Your task to perform on an android device: set default search engine in the chrome app Image 0: 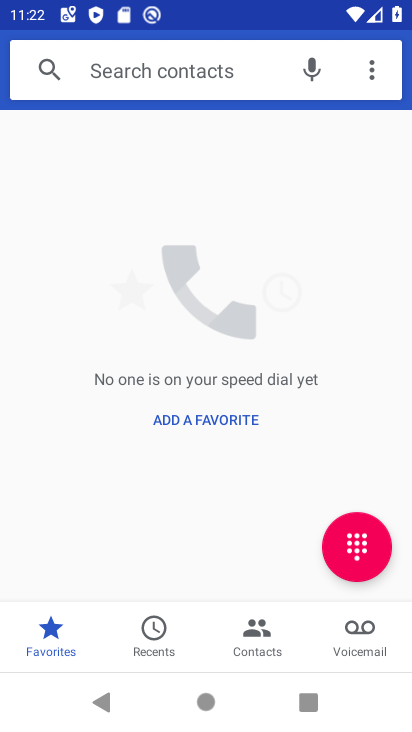
Step 0: press home button
Your task to perform on an android device: set default search engine in the chrome app Image 1: 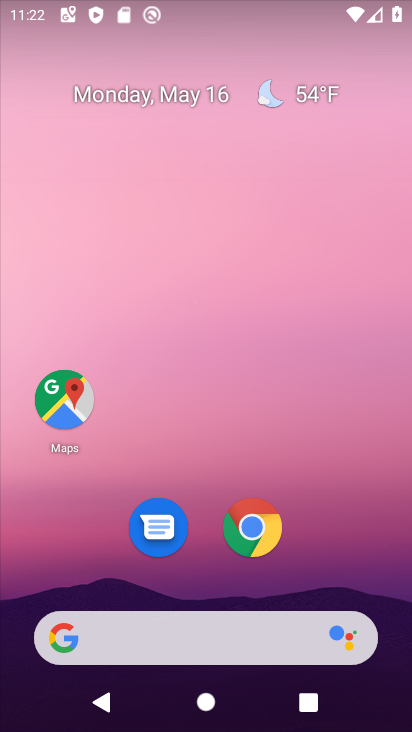
Step 1: drag from (249, 674) to (275, 265)
Your task to perform on an android device: set default search engine in the chrome app Image 2: 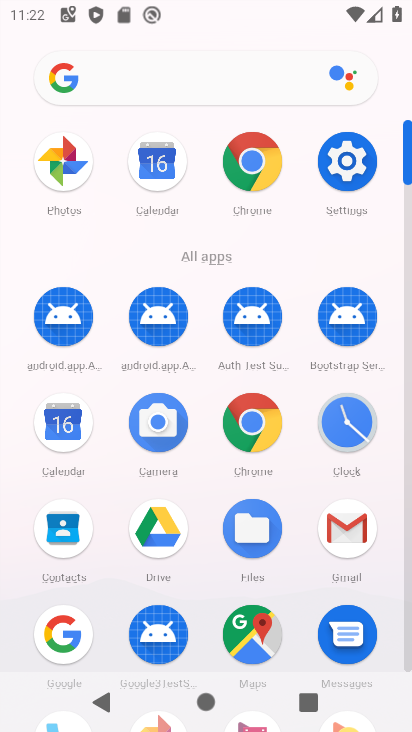
Step 2: click (240, 171)
Your task to perform on an android device: set default search engine in the chrome app Image 3: 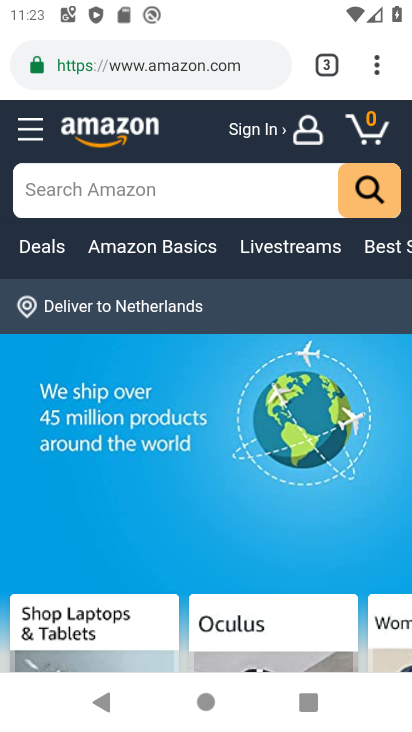
Step 3: click (376, 79)
Your task to perform on an android device: set default search engine in the chrome app Image 4: 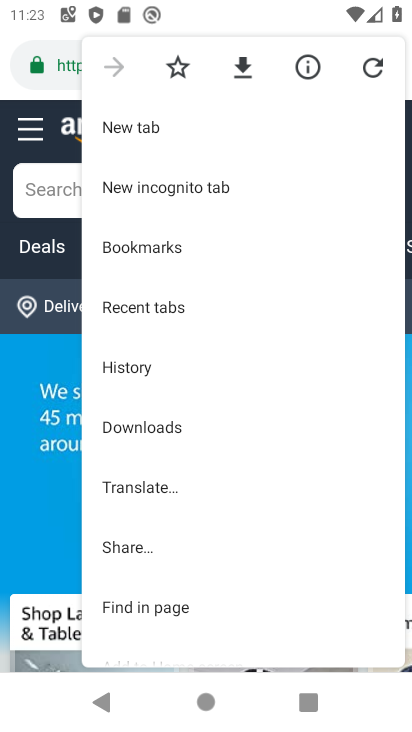
Step 4: drag from (191, 567) to (210, 360)
Your task to perform on an android device: set default search engine in the chrome app Image 5: 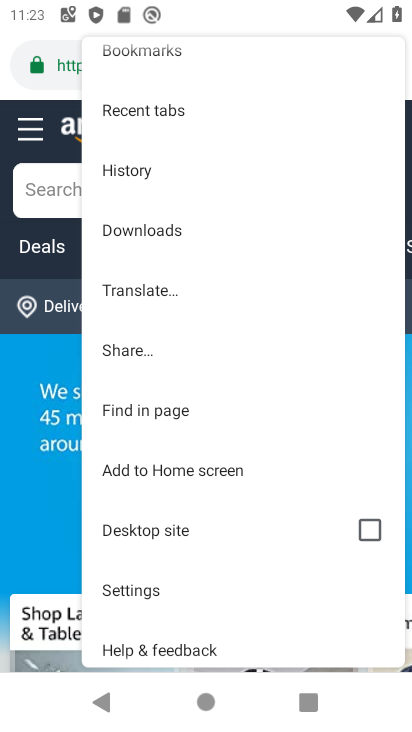
Step 5: click (162, 581)
Your task to perform on an android device: set default search engine in the chrome app Image 6: 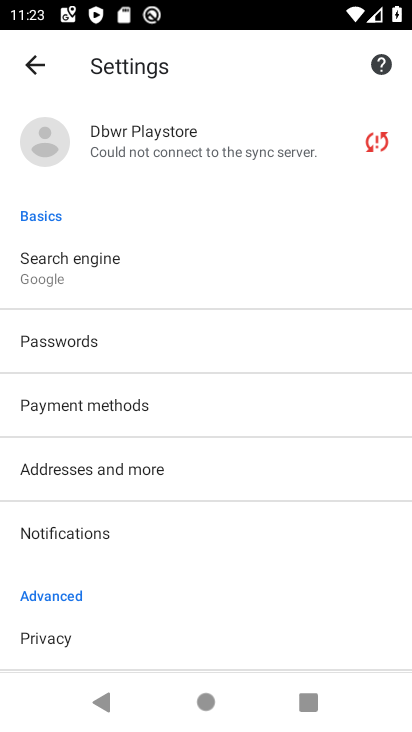
Step 6: click (66, 290)
Your task to perform on an android device: set default search engine in the chrome app Image 7: 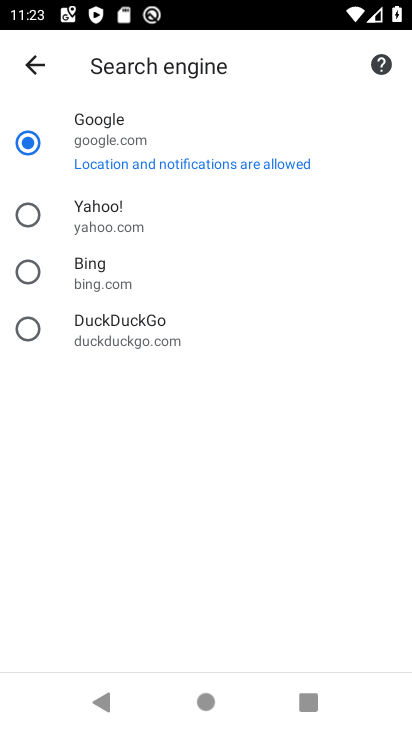
Step 7: task complete